Your task to perform on an android device: check data usage Image 0: 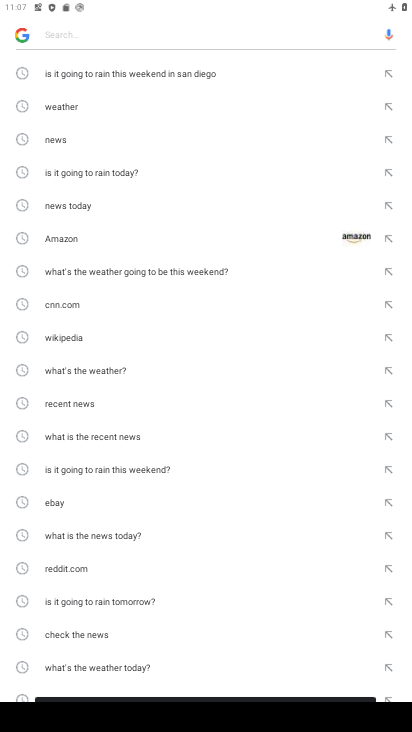
Step 0: press home button
Your task to perform on an android device: check data usage Image 1: 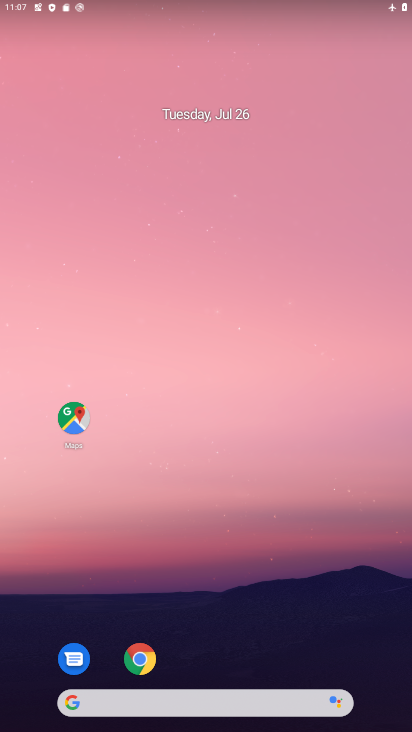
Step 1: drag from (187, 707) to (282, 41)
Your task to perform on an android device: check data usage Image 2: 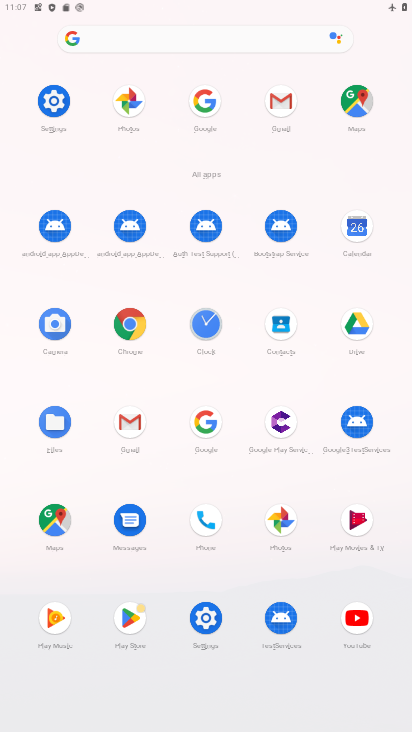
Step 2: click (53, 100)
Your task to perform on an android device: check data usage Image 3: 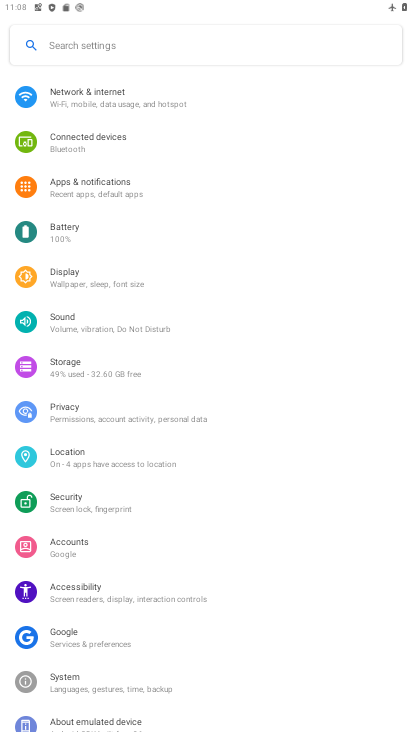
Step 3: click (59, 100)
Your task to perform on an android device: check data usage Image 4: 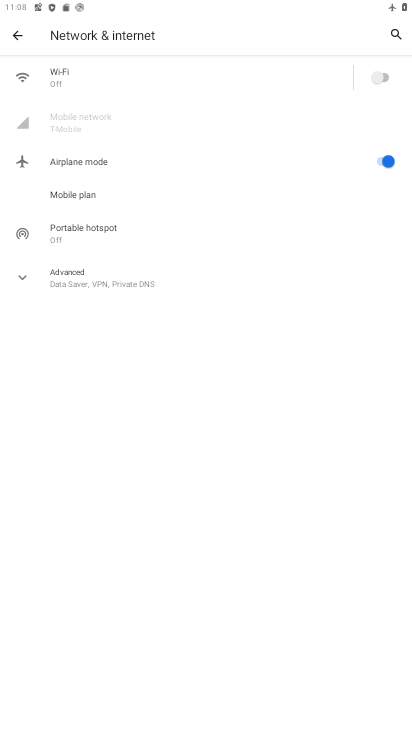
Step 4: task complete